Your task to perform on an android device: check data usage Image 0: 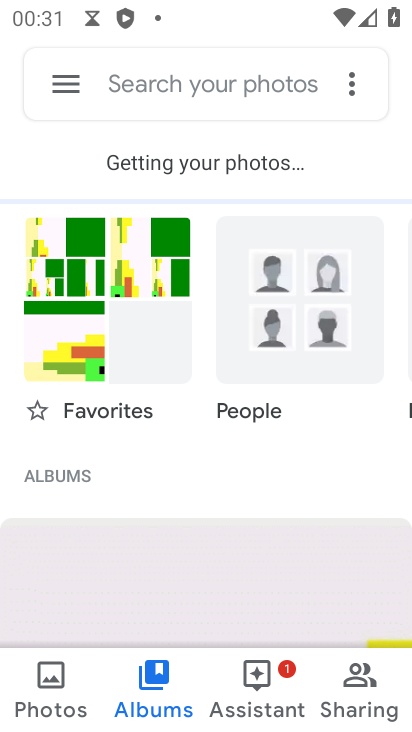
Step 0: press home button
Your task to perform on an android device: check data usage Image 1: 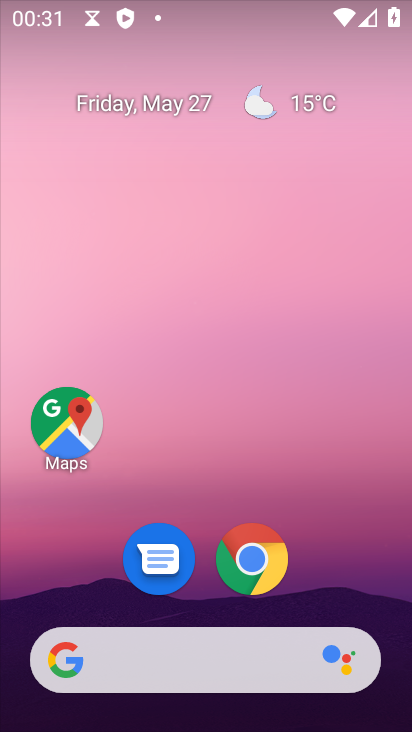
Step 1: drag from (329, 373) to (243, 8)
Your task to perform on an android device: check data usage Image 2: 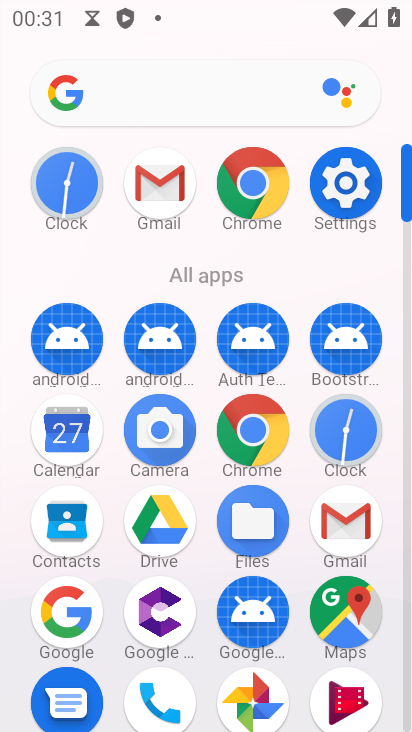
Step 2: click (351, 198)
Your task to perform on an android device: check data usage Image 3: 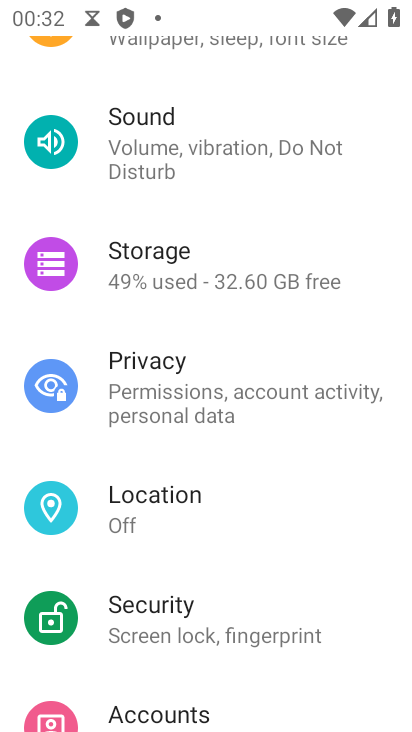
Step 3: drag from (257, 121) to (250, 693)
Your task to perform on an android device: check data usage Image 4: 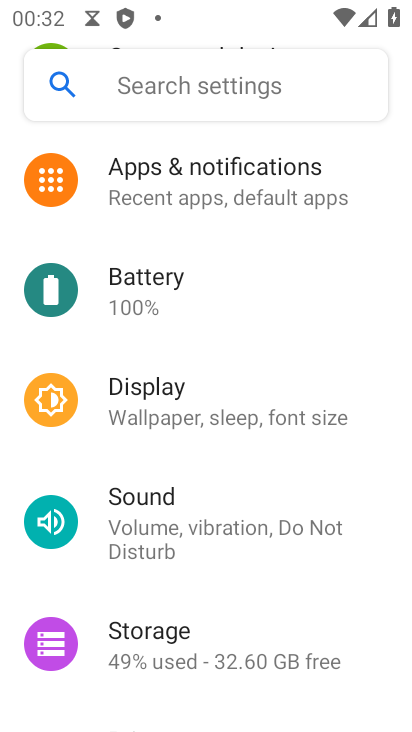
Step 4: drag from (247, 395) to (206, 709)
Your task to perform on an android device: check data usage Image 5: 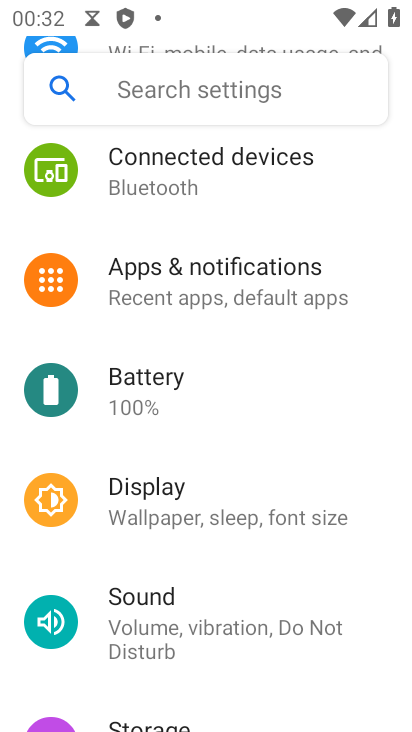
Step 5: drag from (215, 191) to (145, 682)
Your task to perform on an android device: check data usage Image 6: 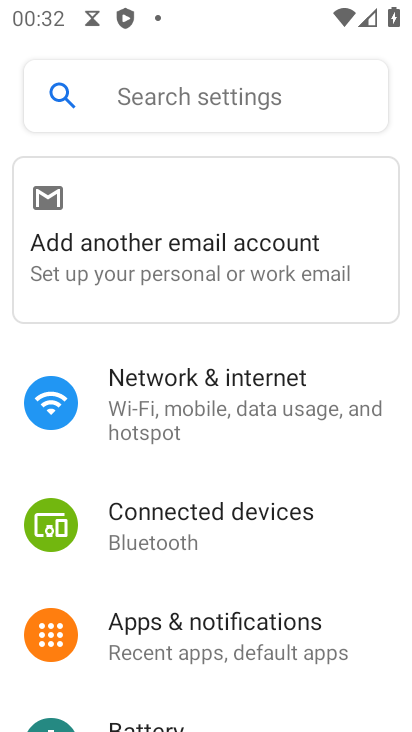
Step 6: click (188, 403)
Your task to perform on an android device: check data usage Image 7: 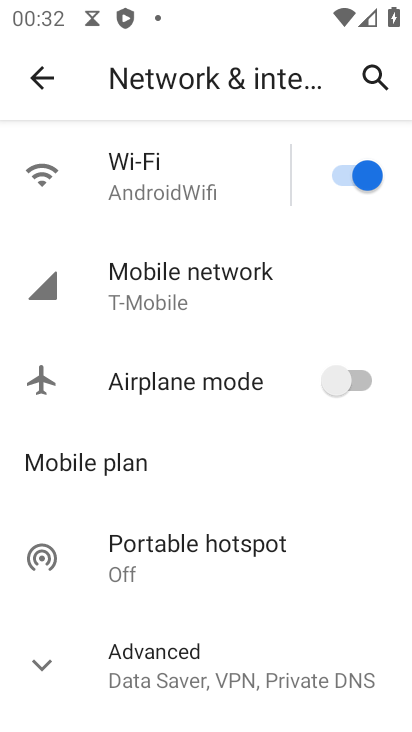
Step 7: click (185, 298)
Your task to perform on an android device: check data usage Image 8: 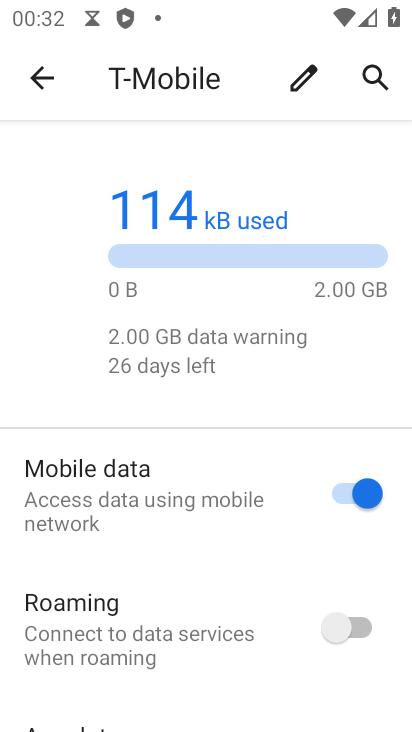
Step 8: task complete